Your task to perform on an android device: Open Wikipedia Image 0: 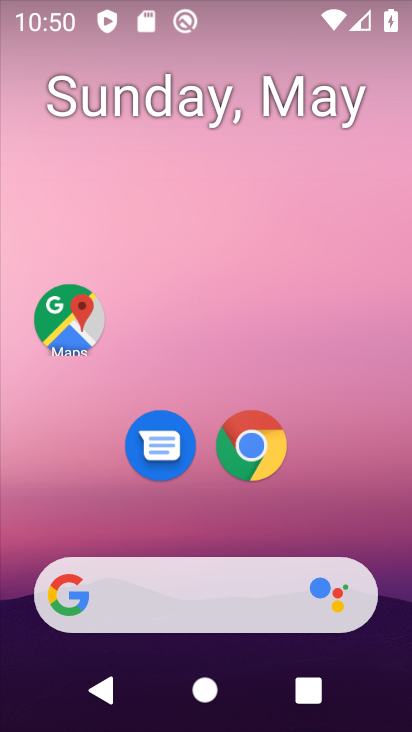
Step 0: click (263, 435)
Your task to perform on an android device: Open Wikipedia Image 1: 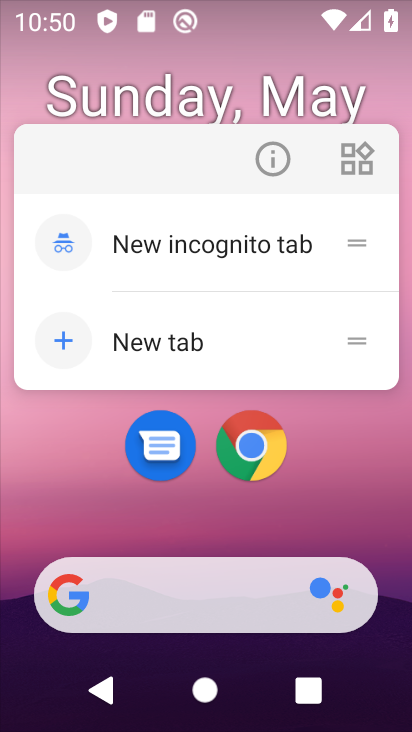
Step 1: click (267, 446)
Your task to perform on an android device: Open Wikipedia Image 2: 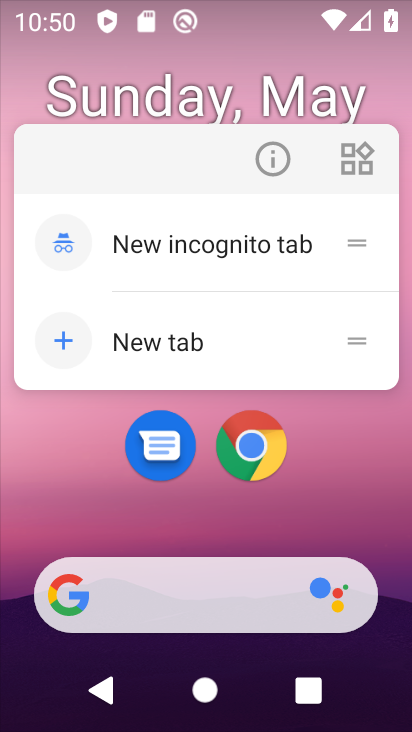
Step 2: click (246, 440)
Your task to perform on an android device: Open Wikipedia Image 3: 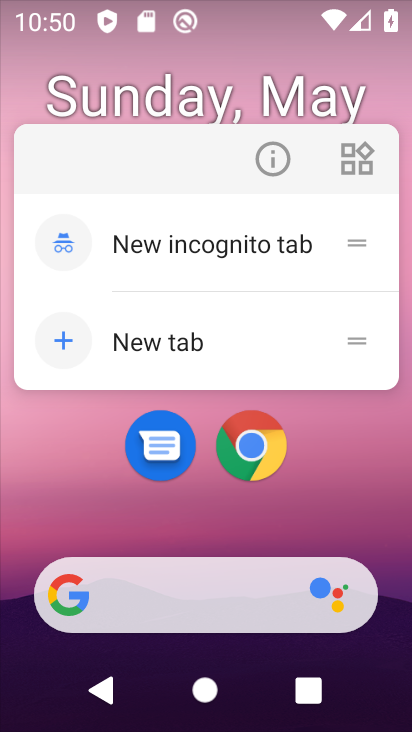
Step 3: click (328, 521)
Your task to perform on an android device: Open Wikipedia Image 4: 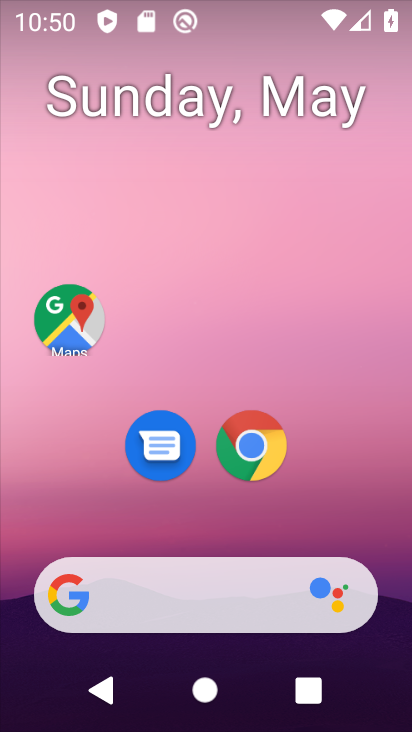
Step 4: drag from (325, 494) to (357, 46)
Your task to perform on an android device: Open Wikipedia Image 5: 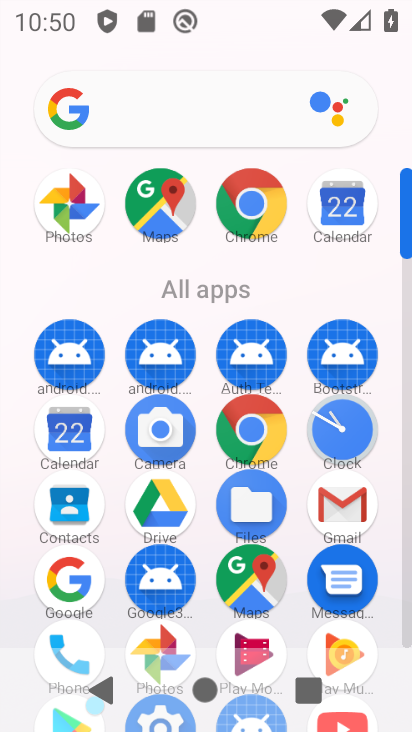
Step 5: click (260, 207)
Your task to perform on an android device: Open Wikipedia Image 6: 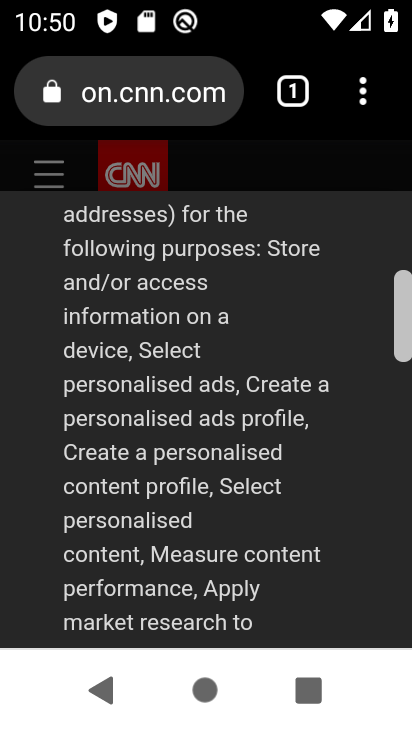
Step 6: drag from (366, 88) to (128, 190)
Your task to perform on an android device: Open Wikipedia Image 7: 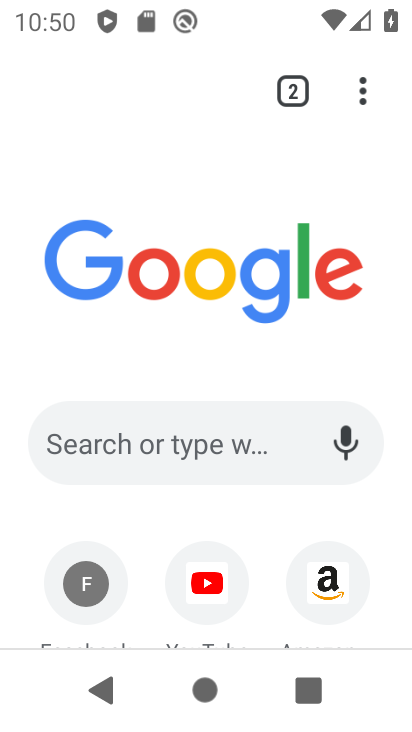
Step 7: drag from (260, 553) to (317, 175)
Your task to perform on an android device: Open Wikipedia Image 8: 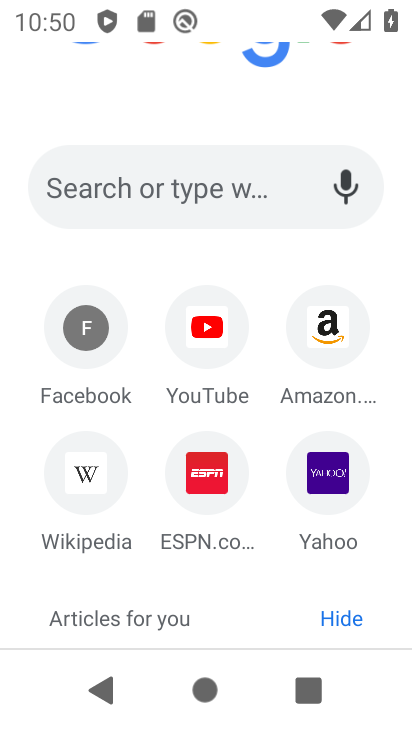
Step 8: click (82, 477)
Your task to perform on an android device: Open Wikipedia Image 9: 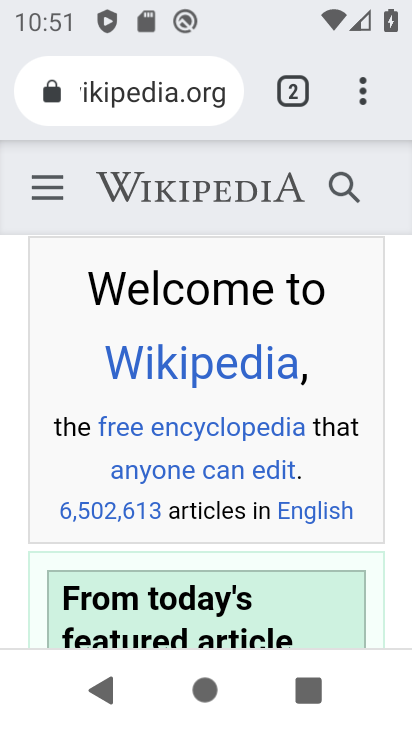
Step 9: task complete